Your task to perform on an android device: toggle wifi Image 0: 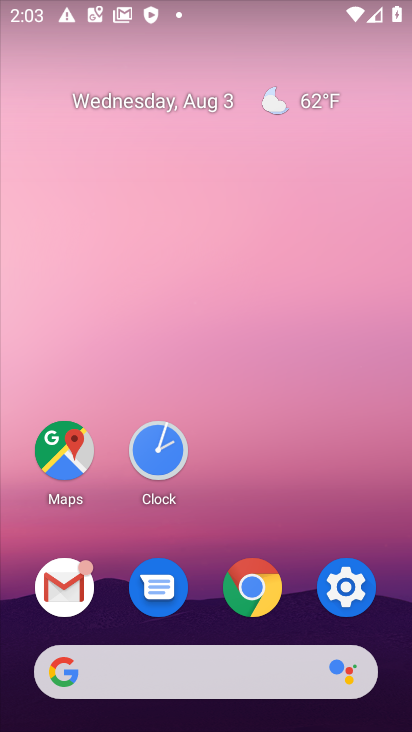
Step 0: click (348, 583)
Your task to perform on an android device: toggle wifi Image 1: 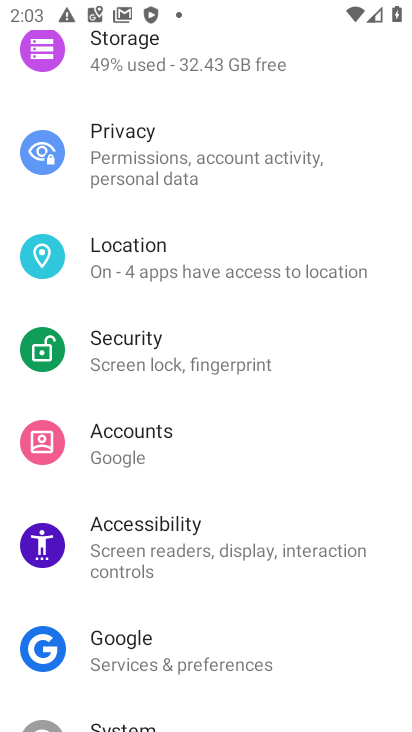
Step 1: drag from (212, 120) to (115, 485)
Your task to perform on an android device: toggle wifi Image 2: 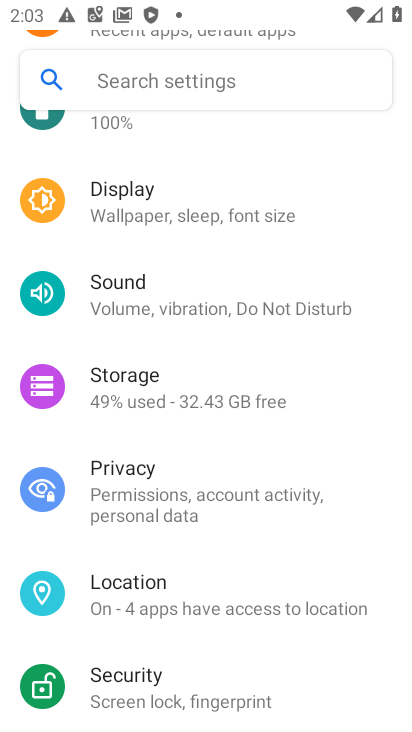
Step 2: drag from (243, 166) to (304, 582)
Your task to perform on an android device: toggle wifi Image 3: 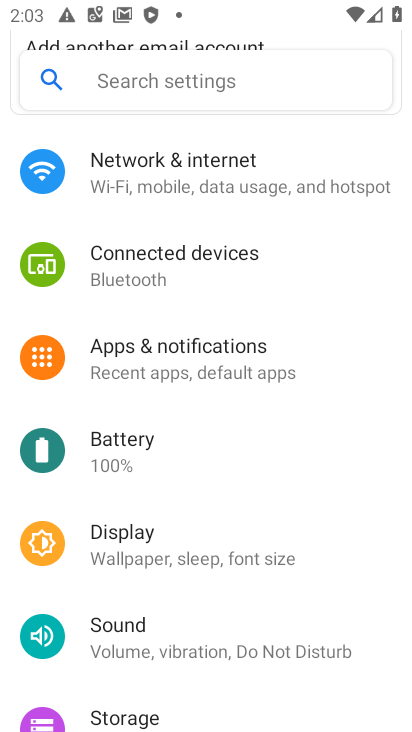
Step 3: click (163, 164)
Your task to perform on an android device: toggle wifi Image 4: 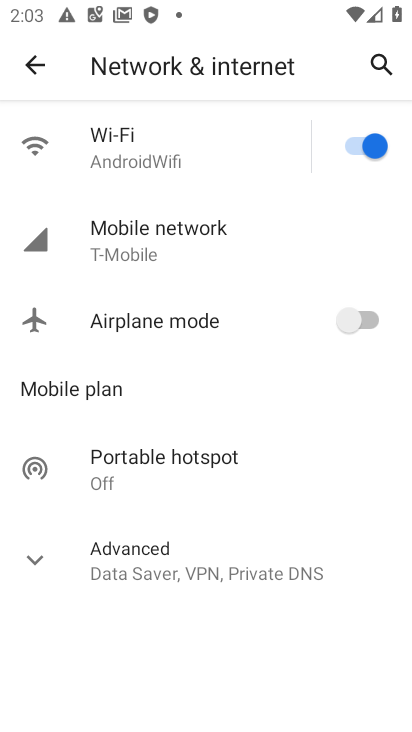
Step 4: click (368, 143)
Your task to perform on an android device: toggle wifi Image 5: 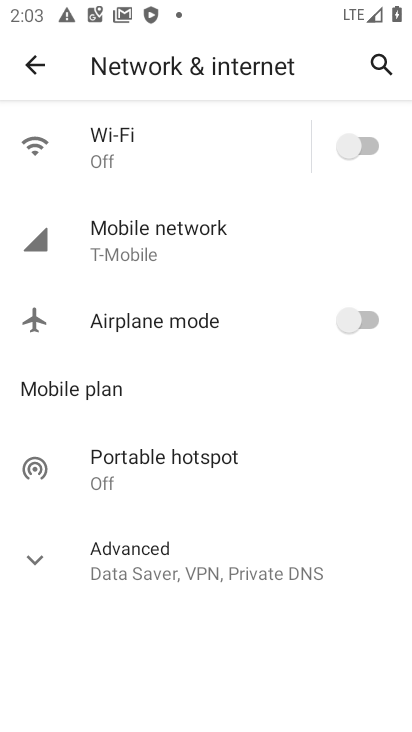
Step 5: task complete